Your task to perform on an android device: change the clock display to analog Image 0: 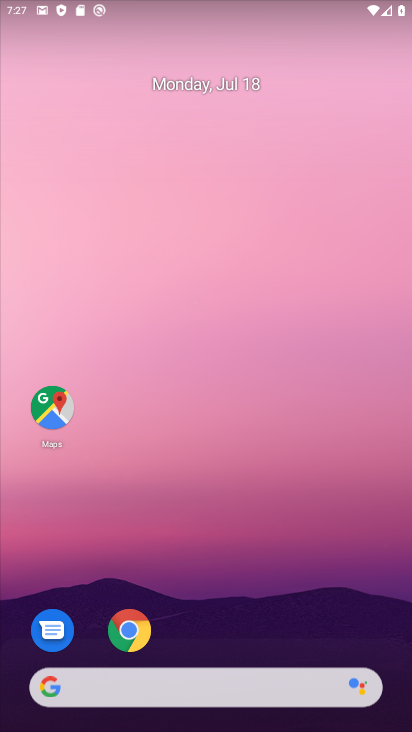
Step 0: drag from (233, 636) to (153, 35)
Your task to perform on an android device: change the clock display to analog Image 1: 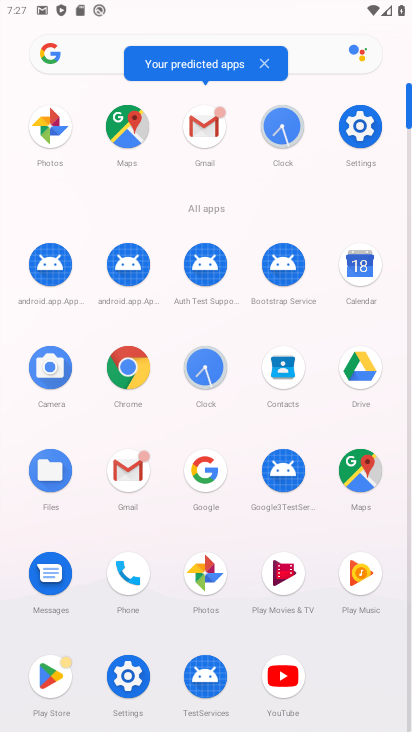
Step 1: click (285, 114)
Your task to perform on an android device: change the clock display to analog Image 2: 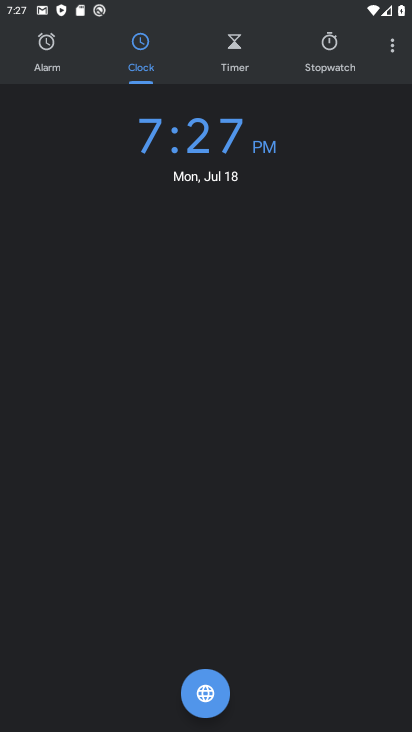
Step 2: click (394, 50)
Your task to perform on an android device: change the clock display to analog Image 3: 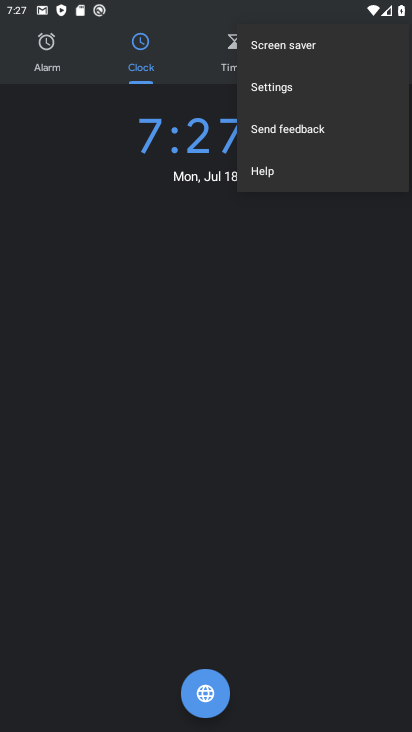
Step 3: click (286, 89)
Your task to perform on an android device: change the clock display to analog Image 4: 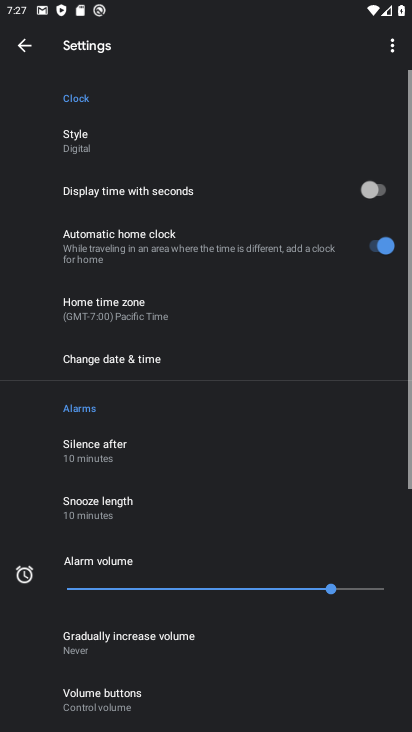
Step 4: click (90, 140)
Your task to perform on an android device: change the clock display to analog Image 5: 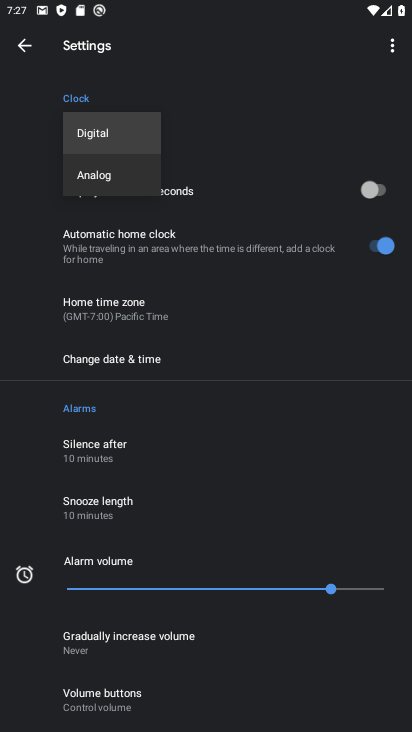
Step 5: click (80, 171)
Your task to perform on an android device: change the clock display to analog Image 6: 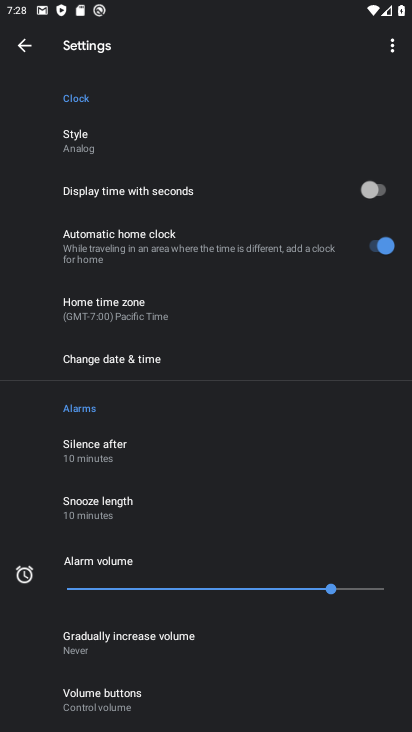
Step 6: task complete